Your task to perform on an android device: Go to network settings Image 0: 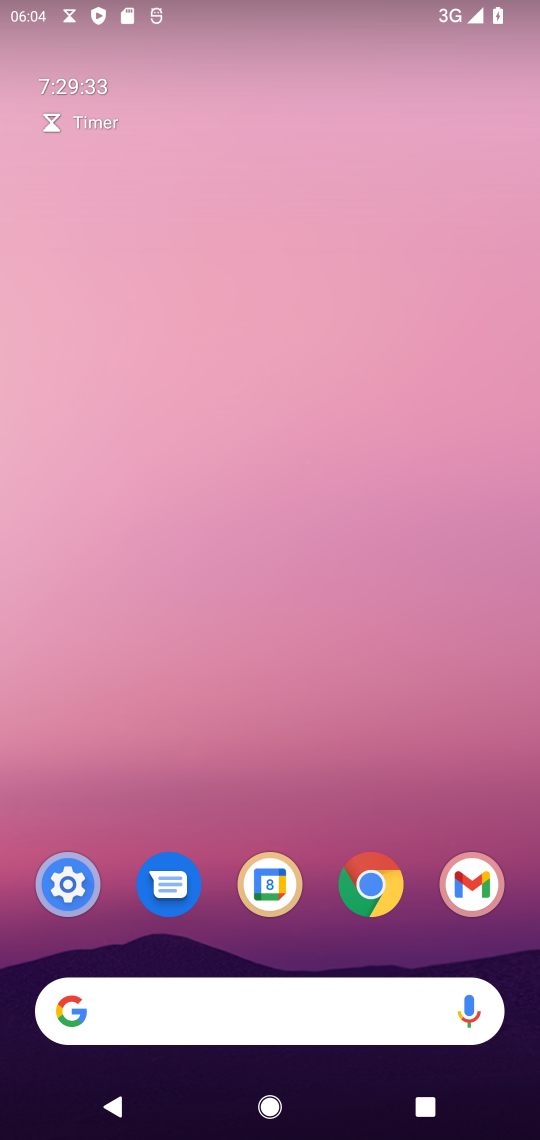
Step 0: drag from (318, 843) to (252, 251)
Your task to perform on an android device: Go to network settings Image 1: 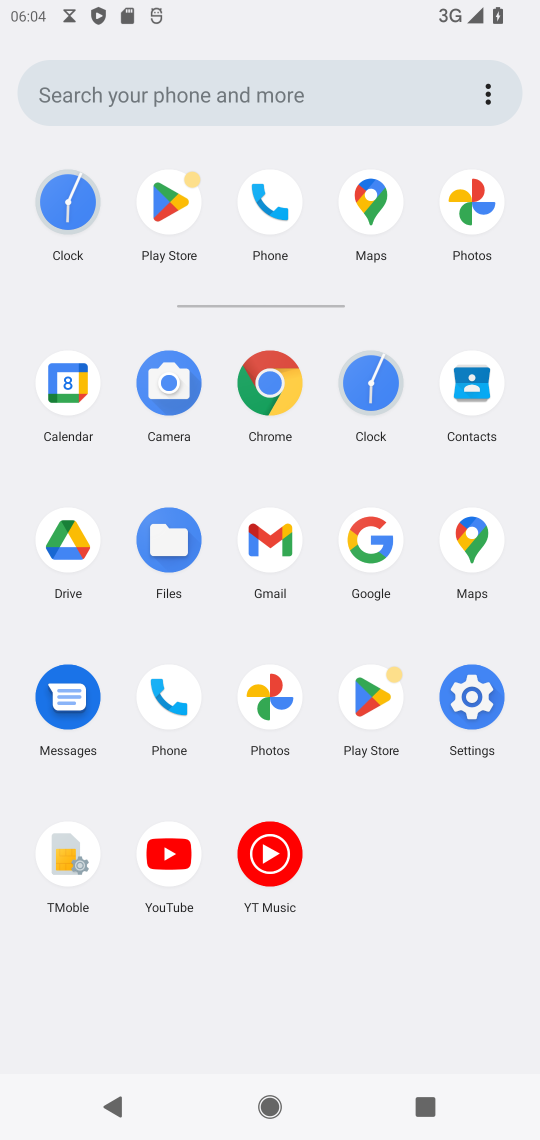
Step 1: click (475, 683)
Your task to perform on an android device: Go to network settings Image 2: 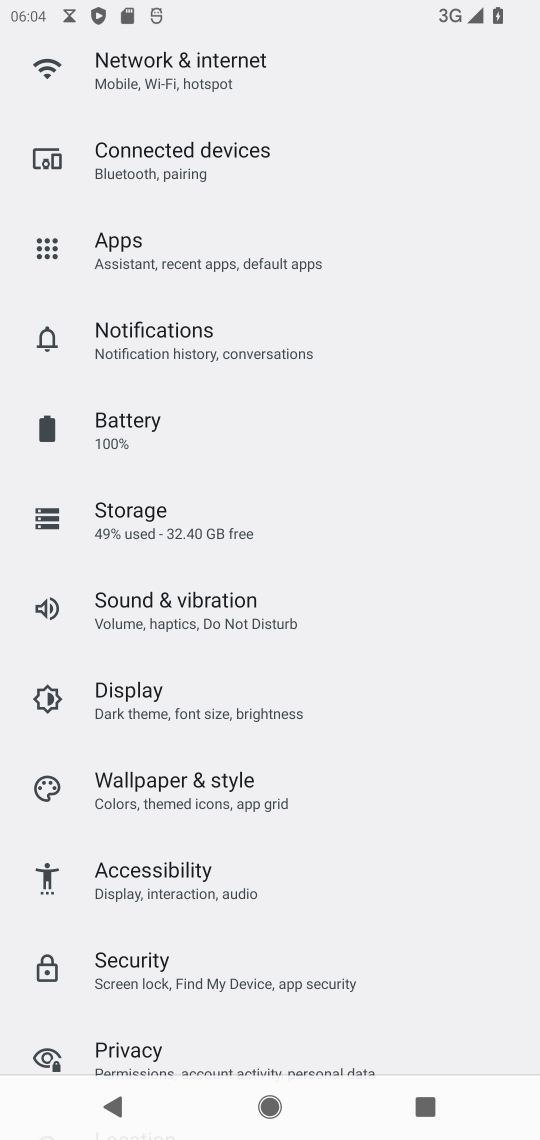
Step 2: click (240, 76)
Your task to perform on an android device: Go to network settings Image 3: 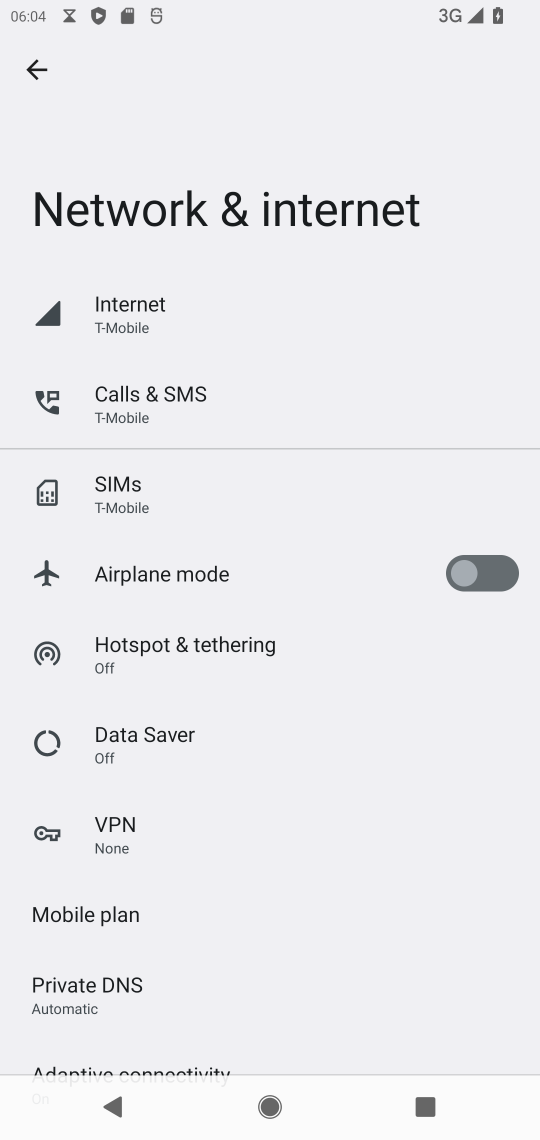
Step 3: task complete